Your task to perform on an android device: change the clock display to analog Image 0: 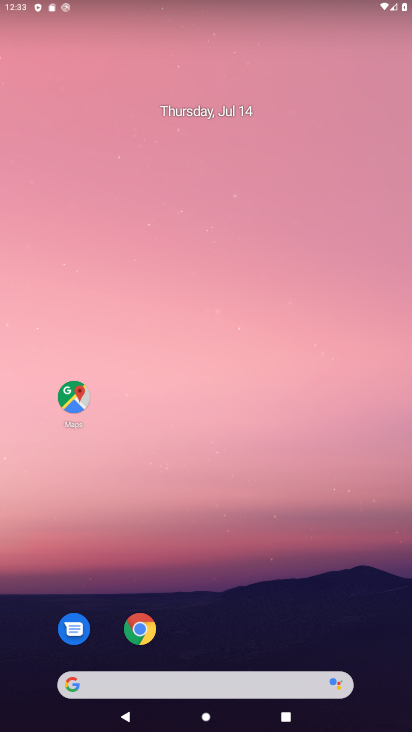
Step 0: drag from (203, 561) to (235, 95)
Your task to perform on an android device: change the clock display to analog Image 1: 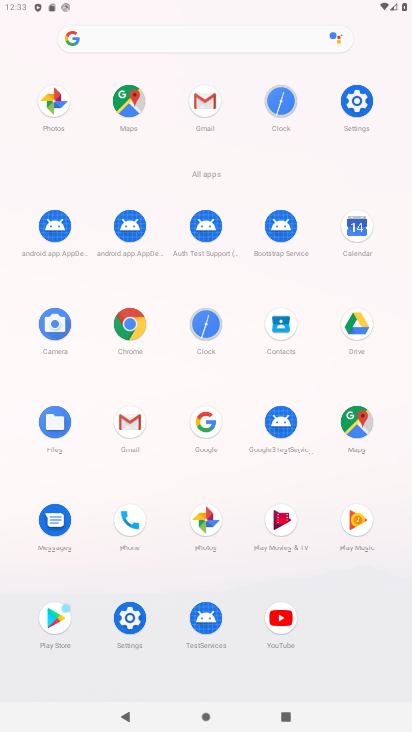
Step 1: click (209, 321)
Your task to perform on an android device: change the clock display to analog Image 2: 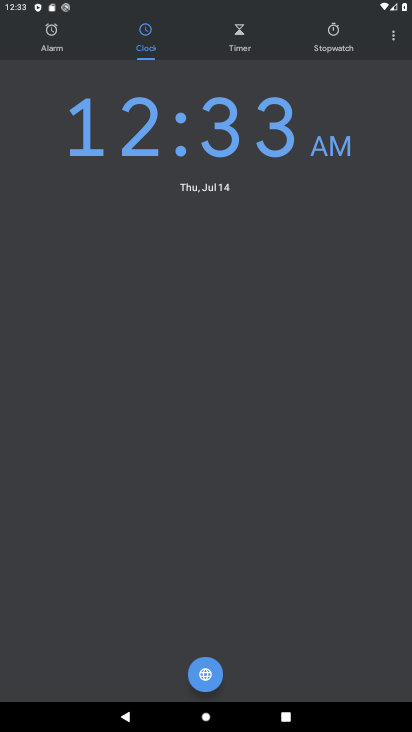
Step 2: click (392, 43)
Your task to perform on an android device: change the clock display to analog Image 3: 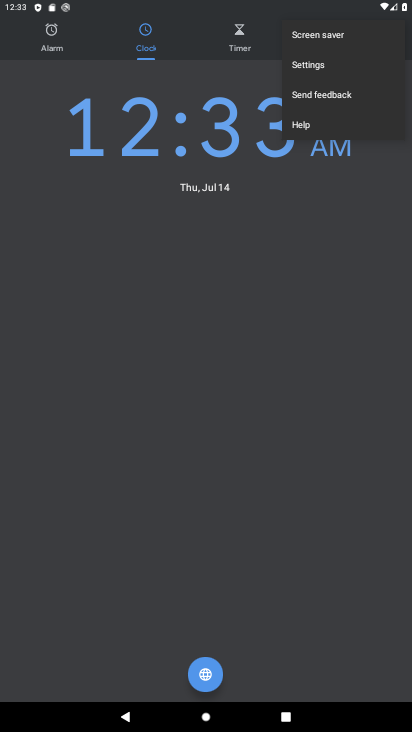
Step 3: click (300, 62)
Your task to perform on an android device: change the clock display to analog Image 4: 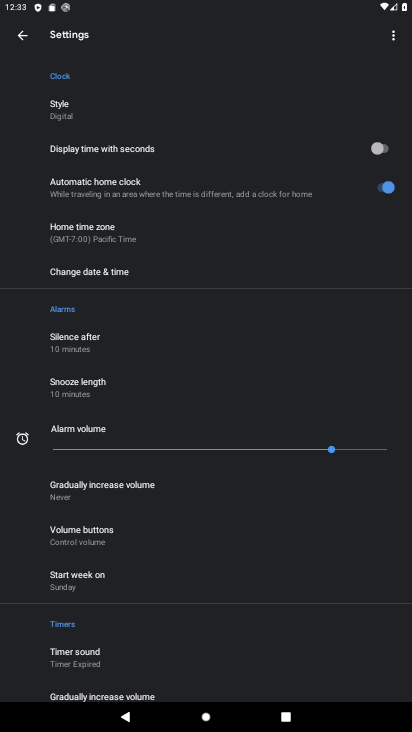
Step 4: click (75, 109)
Your task to perform on an android device: change the clock display to analog Image 5: 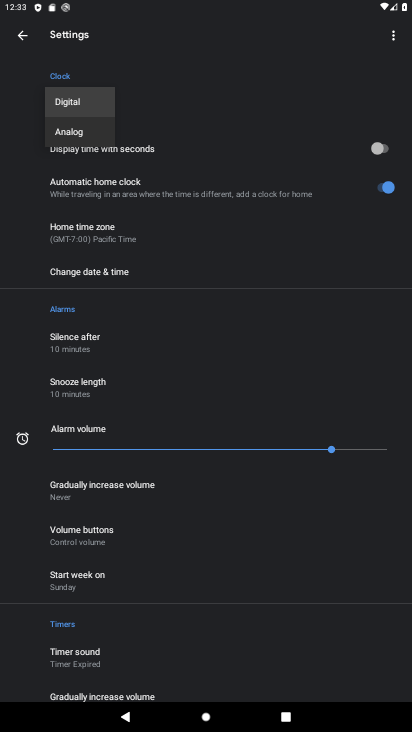
Step 5: click (78, 135)
Your task to perform on an android device: change the clock display to analog Image 6: 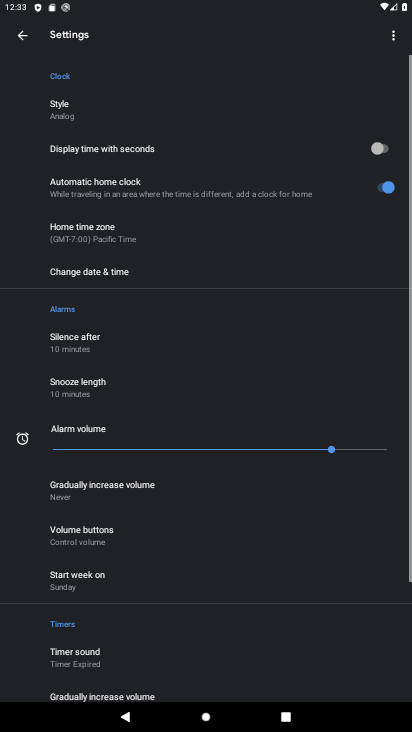
Step 6: task complete